Your task to perform on an android device: turn vacation reply on in the gmail app Image 0: 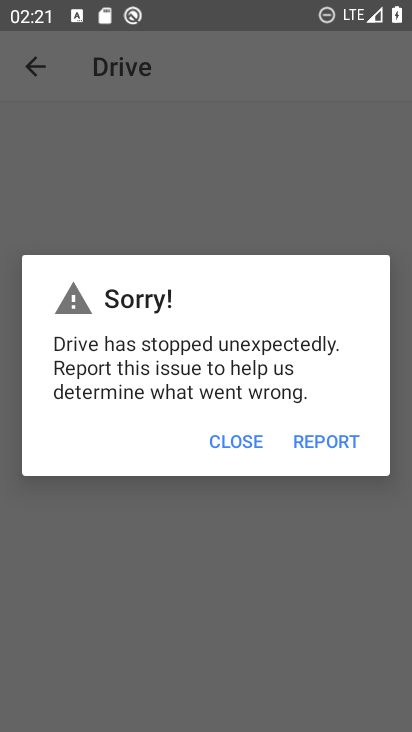
Step 0: press home button
Your task to perform on an android device: turn vacation reply on in the gmail app Image 1: 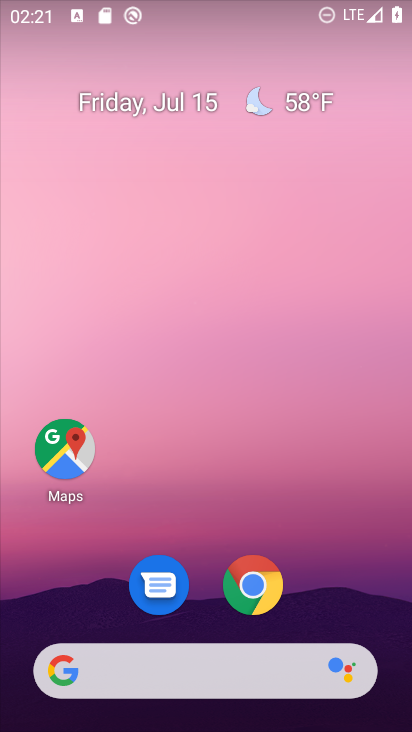
Step 1: drag from (330, 511) to (281, 31)
Your task to perform on an android device: turn vacation reply on in the gmail app Image 2: 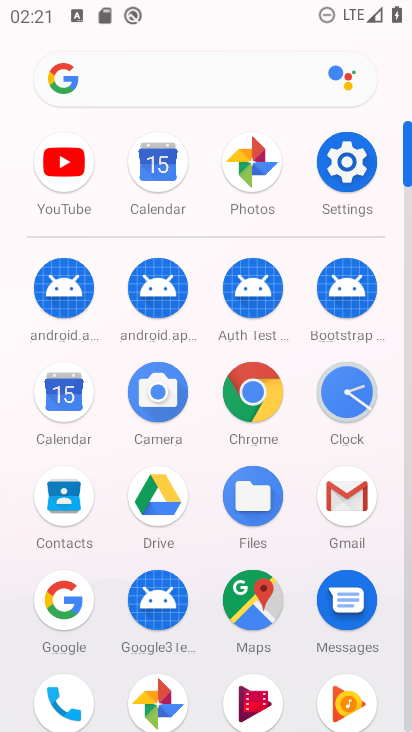
Step 2: click (343, 486)
Your task to perform on an android device: turn vacation reply on in the gmail app Image 3: 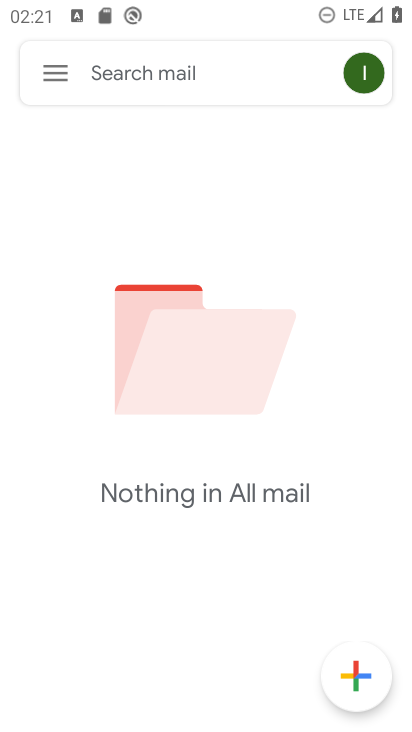
Step 3: click (56, 69)
Your task to perform on an android device: turn vacation reply on in the gmail app Image 4: 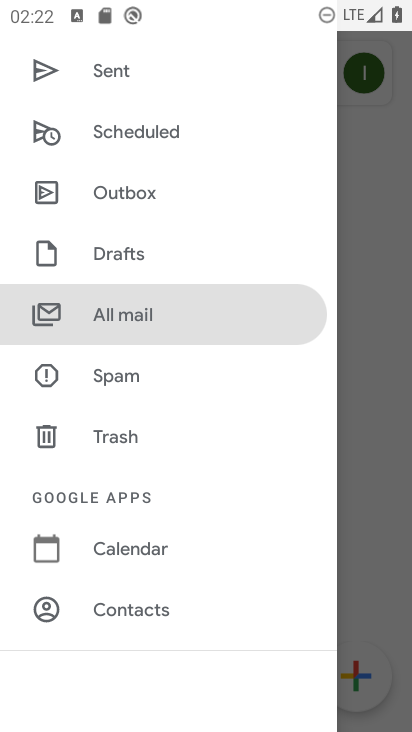
Step 4: drag from (199, 454) to (208, 172)
Your task to perform on an android device: turn vacation reply on in the gmail app Image 5: 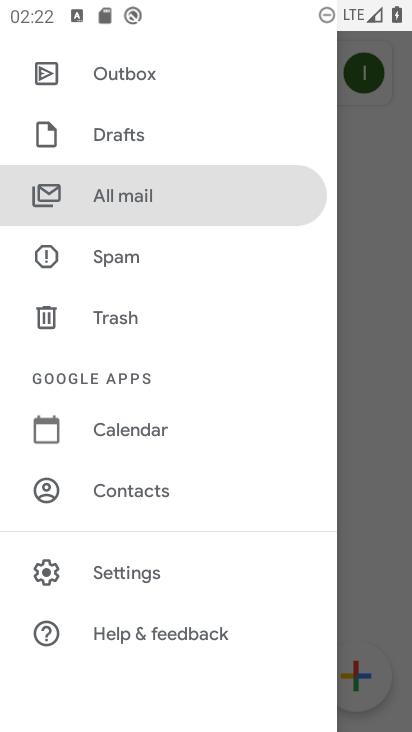
Step 5: click (129, 574)
Your task to perform on an android device: turn vacation reply on in the gmail app Image 6: 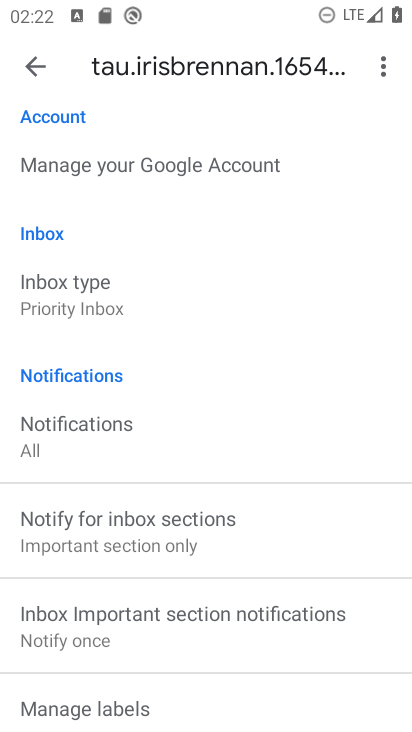
Step 6: drag from (281, 537) to (246, 108)
Your task to perform on an android device: turn vacation reply on in the gmail app Image 7: 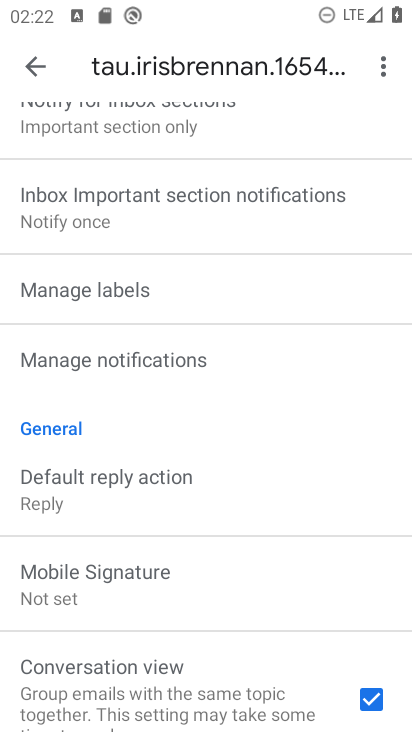
Step 7: drag from (275, 438) to (260, 129)
Your task to perform on an android device: turn vacation reply on in the gmail app Image 8: 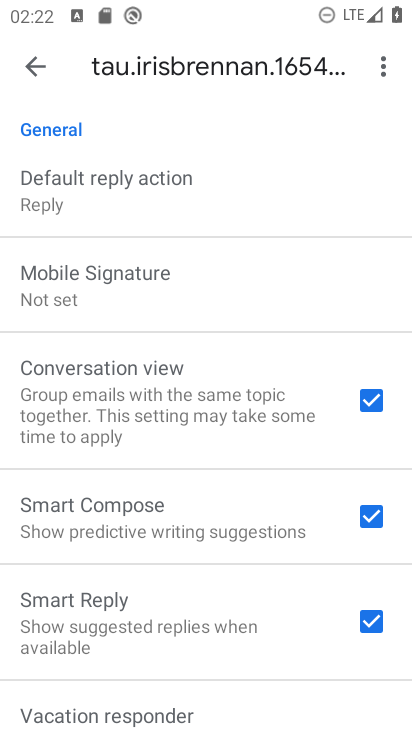
Step 8: drag from (269, 566) to (243, 223)
Your task to perform on an android device: turn vacation reply on in the gmail app Image 9: 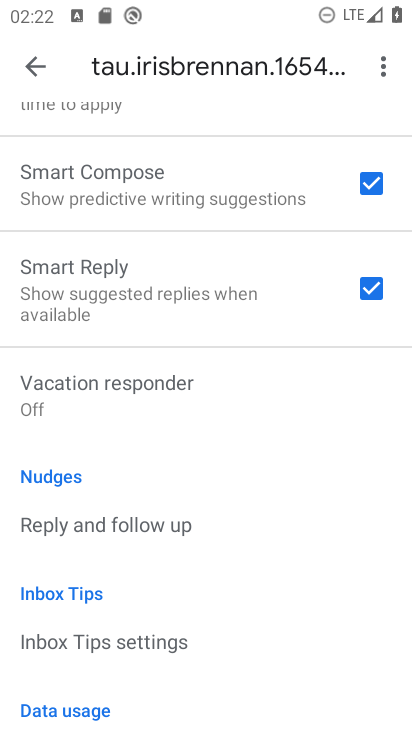
Step 9: click (222, 398)
Your task to perform on an android device: turn vacation reply on in the gmail app Image 10: 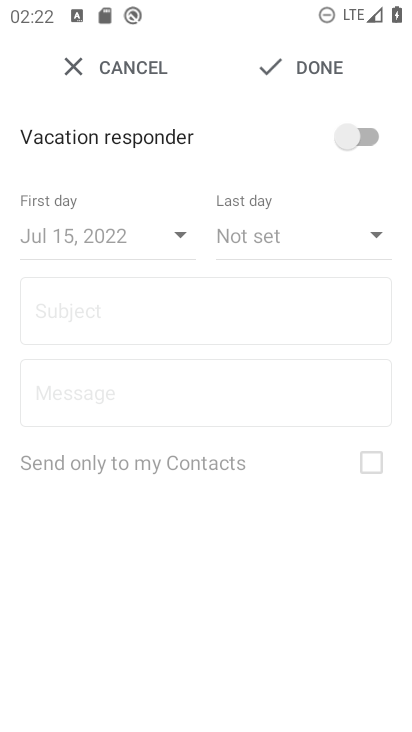
Step 10: click (348, 135)
Your task to perform on an android device: turn vacation reply on in the gmail app Image 11: 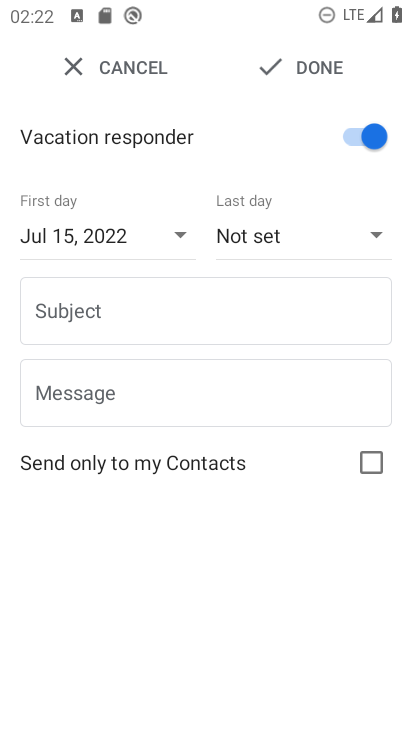
Step 11: task complete